Your task to perform on an android device: Search for flights from Seoul to Barcelona Image 0: 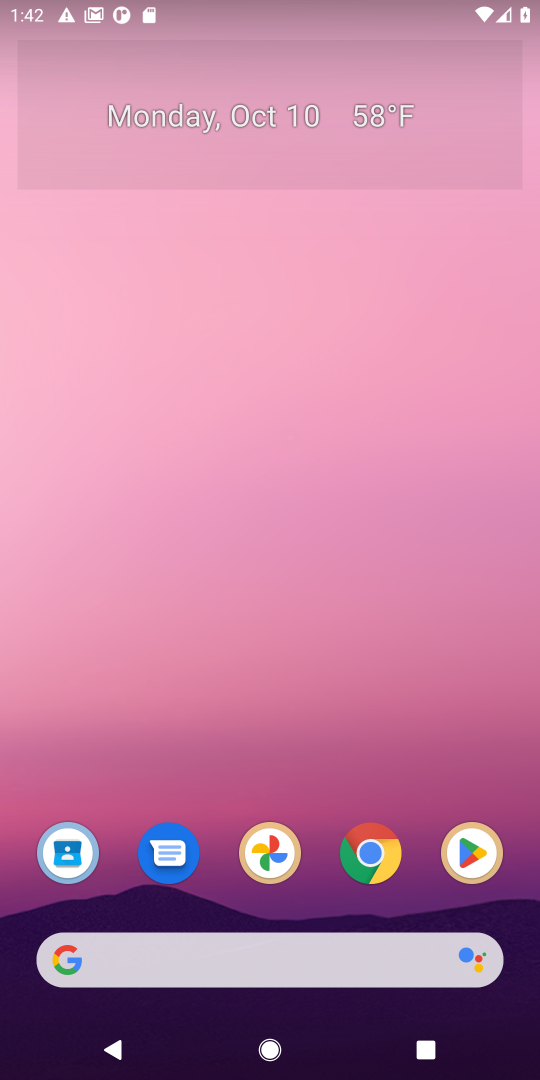
Step 0: click (374, 831)
Your task to perform on an android device: Search for flights from Seoul to Barcelona Image 1: 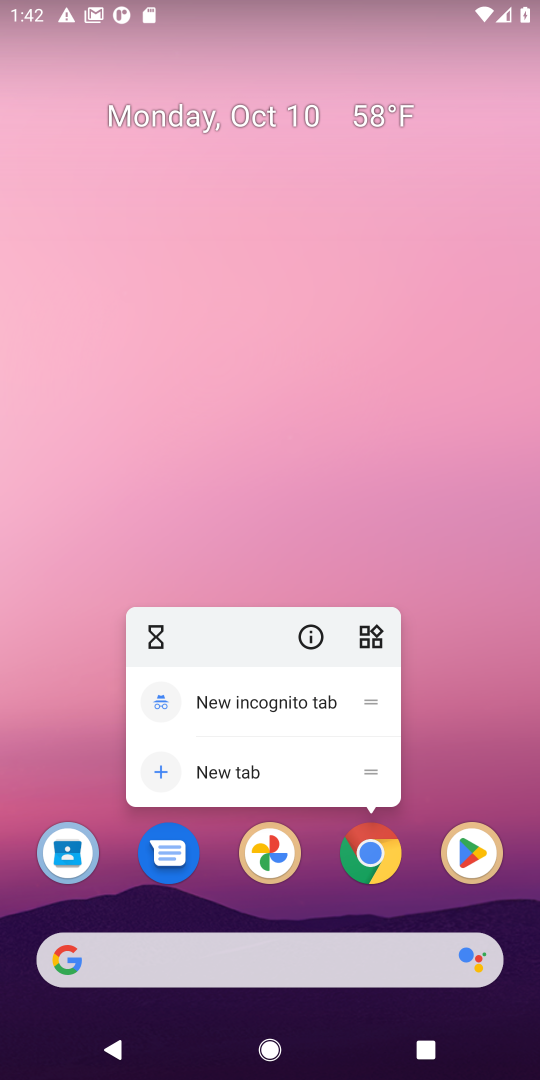
Step 1: click (369, 857)
Your task to perform on an android device: Search for flights from Seoul to Barcelona Image 2: 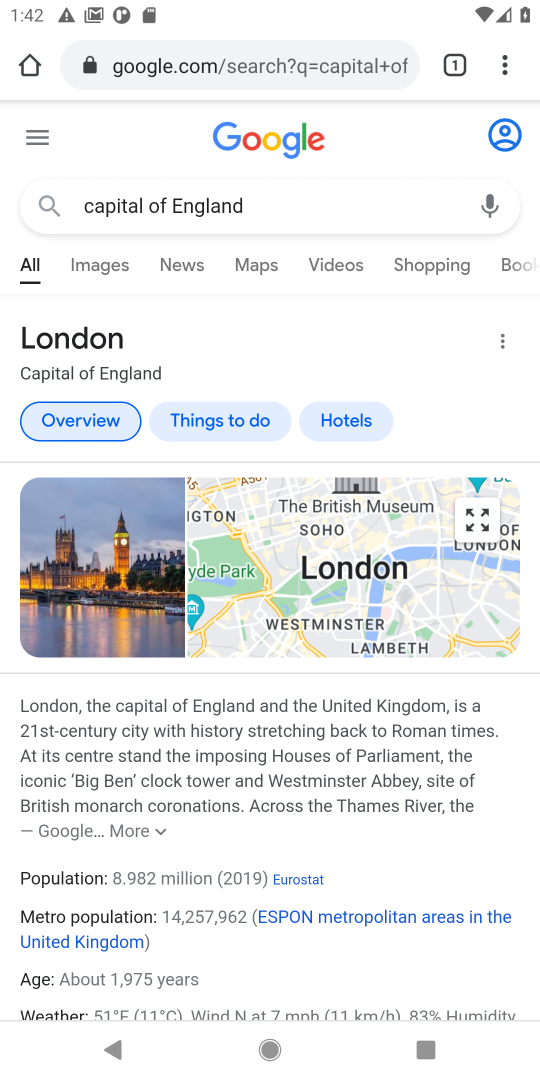
Step 2: click (301, 72)
Your task to perform on an android device: Search for flights from Seoul to Barcelona Image 3: 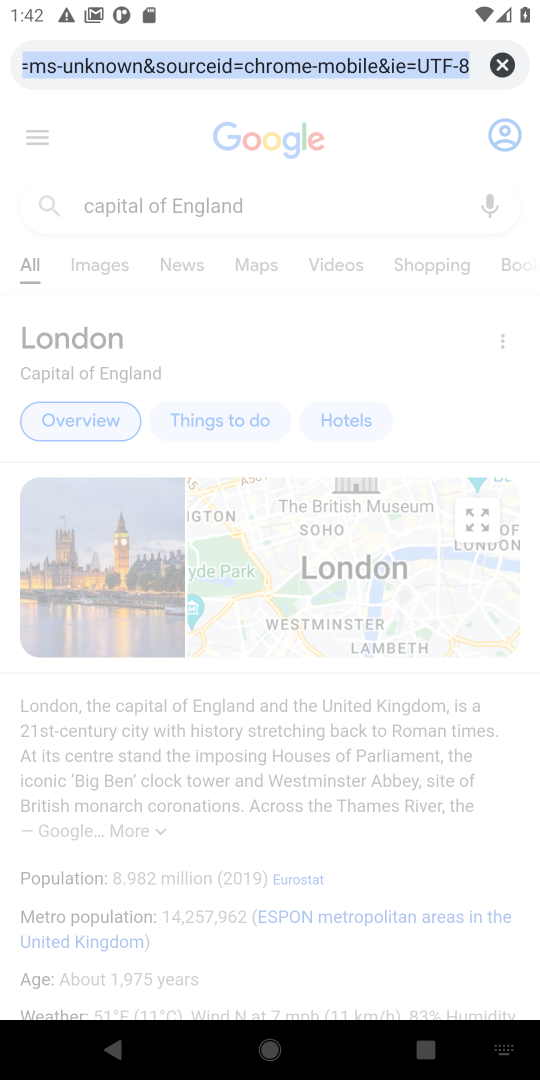
Step 3: type "flights from Seoul to Barcelona"
Your task to perform on an android device: Search for flights from Seoul to Barcelona Image 4: 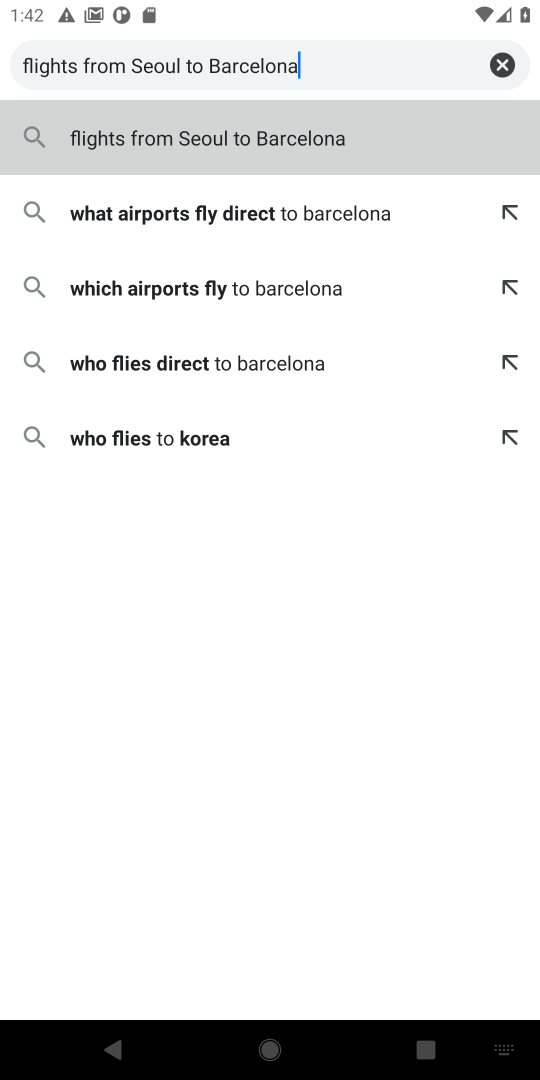
Step 4: click (311, 136)
Your task to perform on an android device: Search for flights from Seoul to Barcelona Image 5: 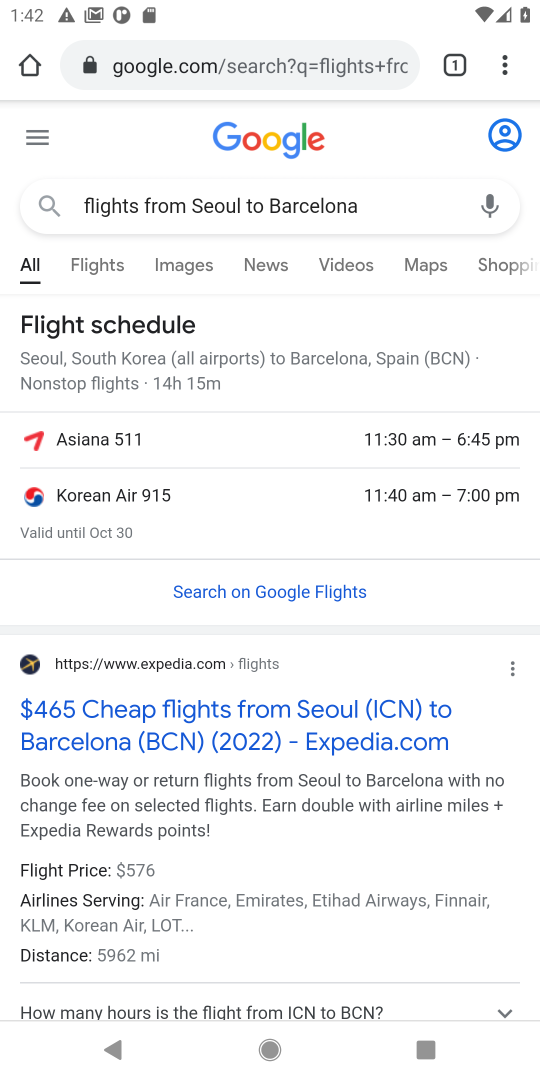
Step 5: drag from (235, 636) to (218, 0)
Your task to perform on an android device: Search for flights from Seoul to Barcelona Image 6: 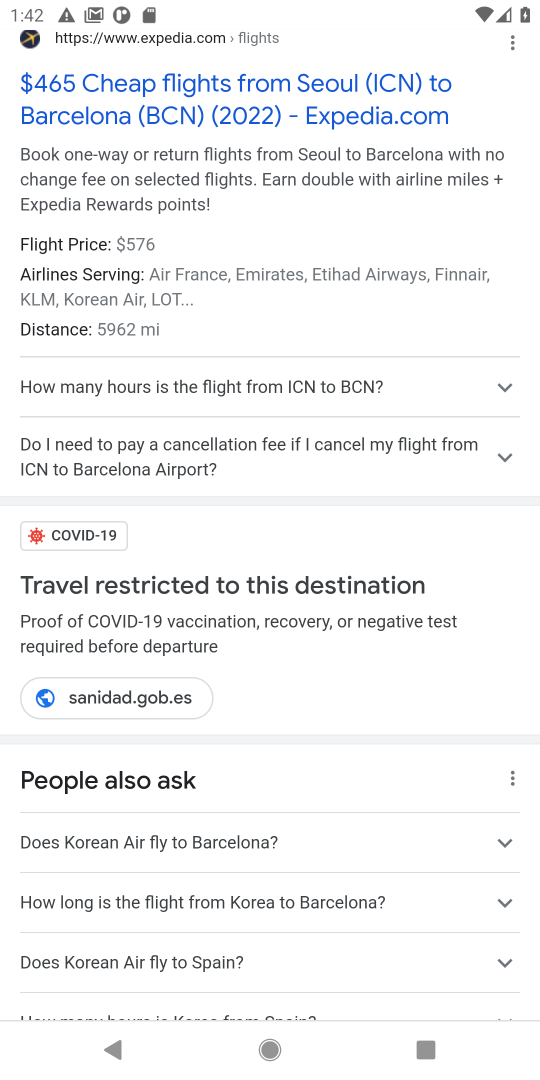
Step 6: drag from (273, 204) to (205, 1069)
Your task to perform on an android device: Search for flights from Seoul to Barcelona Image 7: 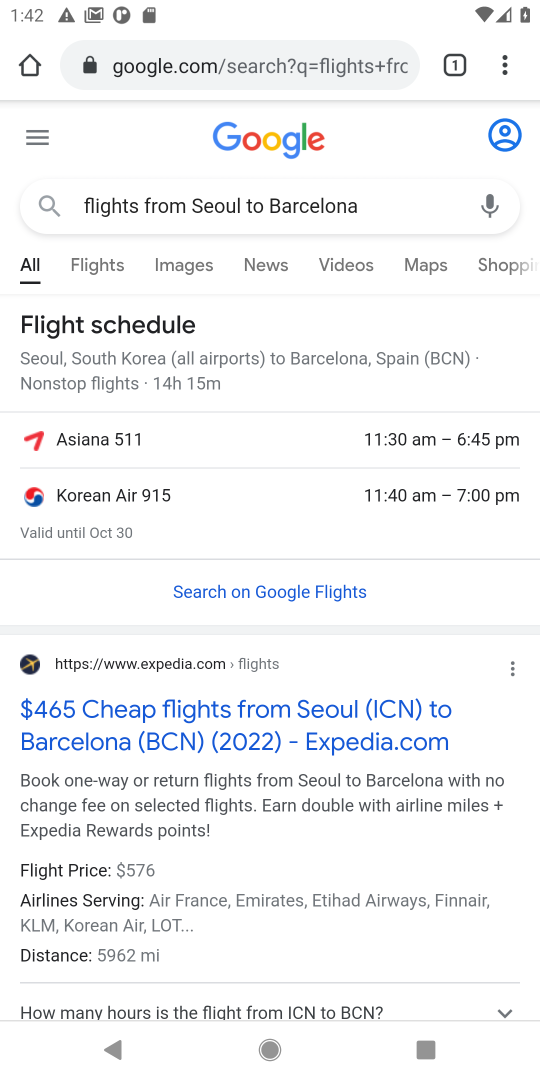
Step 7: click (291, 587)
Your task to perform on an android device: Search for flights from Seoul to Barcelona Image 8: 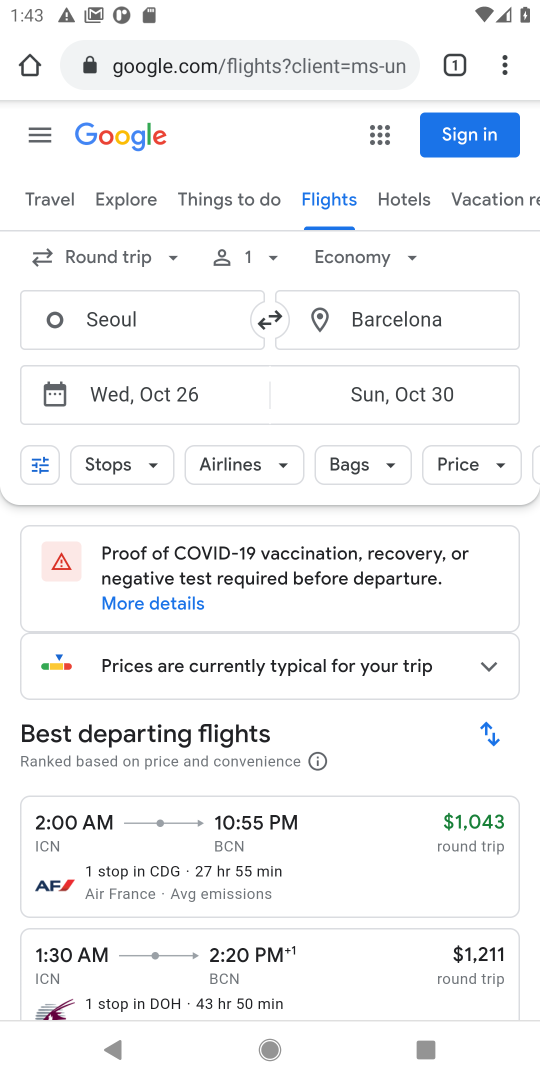
Step 8: task complete